Your task to perform on an android device: turn pop-ups off in chrome Image 0: 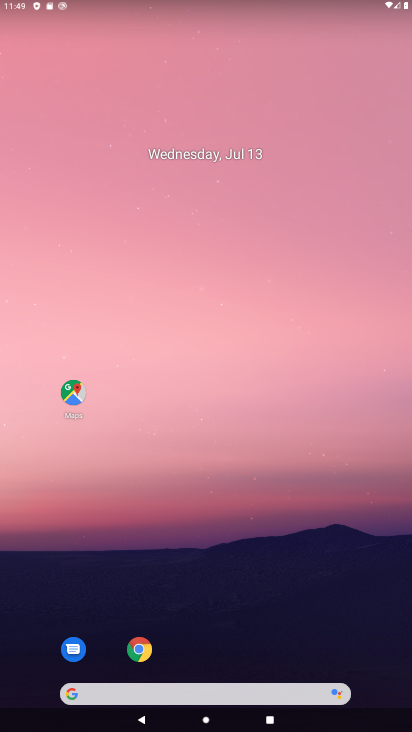
Step 0: click (131, 650)
Your task to perform on an android device: turn pop-ups off in chrome Image 1: 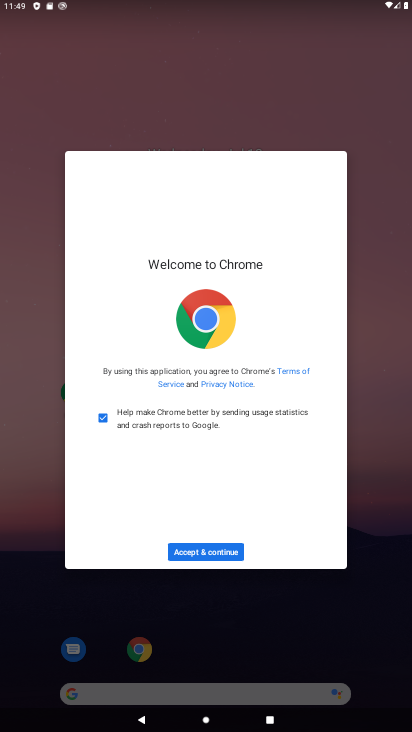
Step 1: click (208, 540)
Your task to perform on an android device: turn pop-ups off in chrome Image 2: 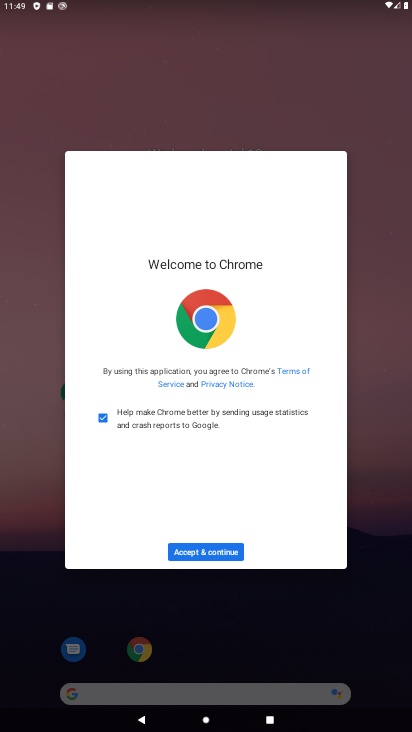
Step 2: click (208, 561)
Your task to perform on an android device: turn pop-ups off in chrome Image 3: 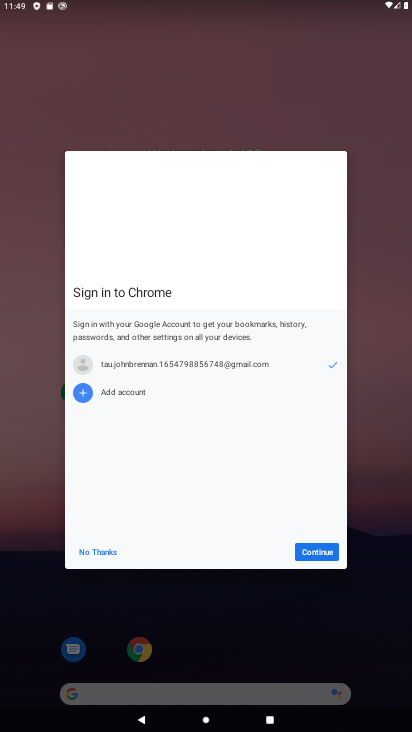
Step 3: click (299, 553)
Your task to perform on an android device: turn pop-ups off in chrome Image 4: 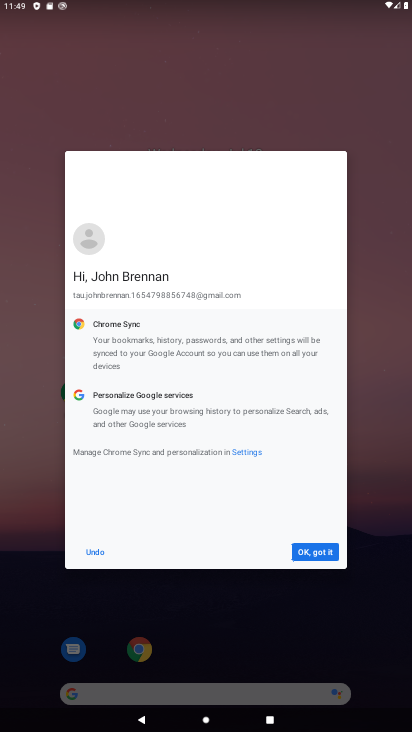
Step 4: click (299, 553)
Your task to perform on an android device: turn pop-ups off in chrome Image 5: 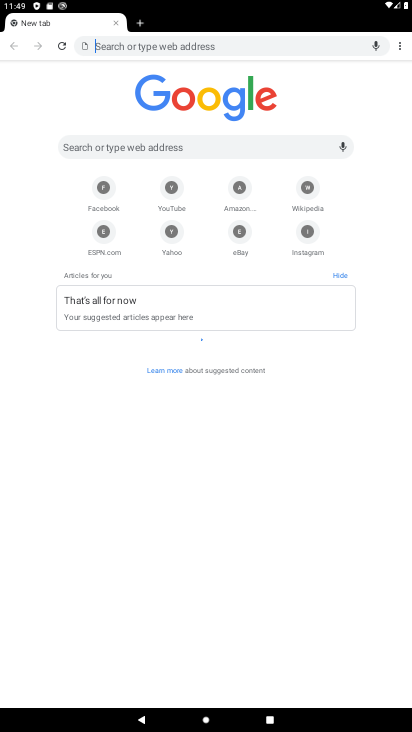
Step 5: click (394, 47)
Your task to perform on an android device: turn pop-ups off in chrome Image 6: 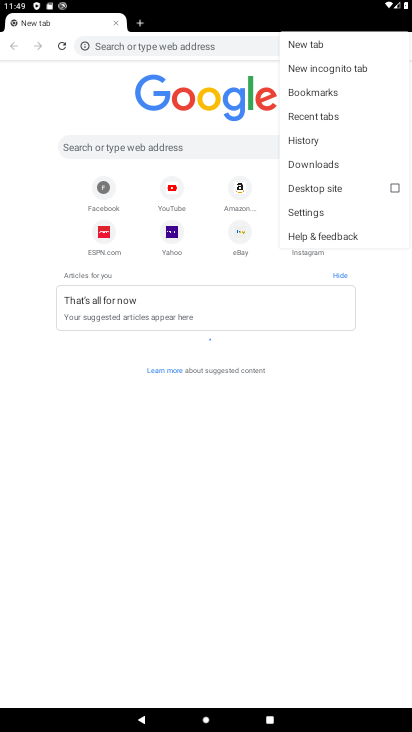
Step 6: click (313, 210)
Your task to perform on an android device: turn pop-ups off in chrome Image 7: 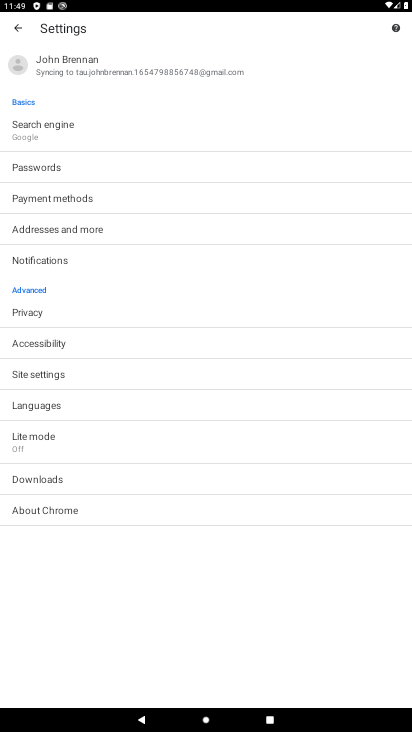
Step 7: click (56, 375)
Your task to perform on an android device: turn pop-ups off in chrome Image 8: 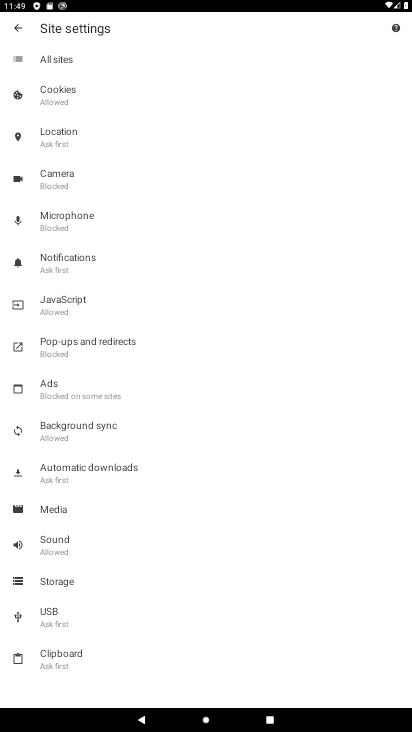
Step 8: click (96, 337)
Your task to perform on an android device: turn pop-ups off in chrome Image 9: 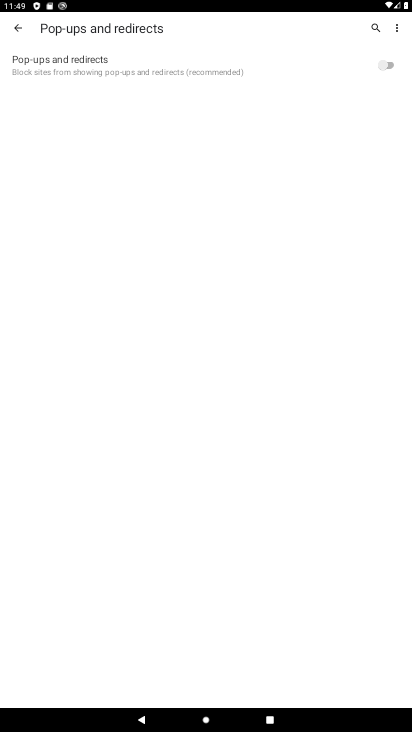
Step 9: task complete